Your task to perform on an android device: Toggle the flashlight Image 0: 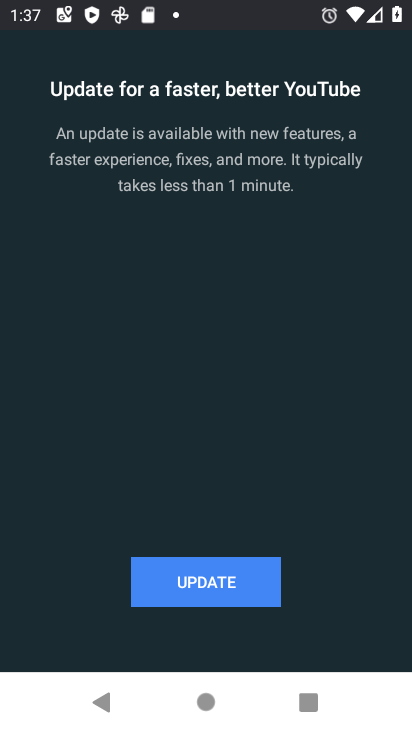
Step 0: press back button
Your task to perform on an android device: Toggle the flashlight Image 1: 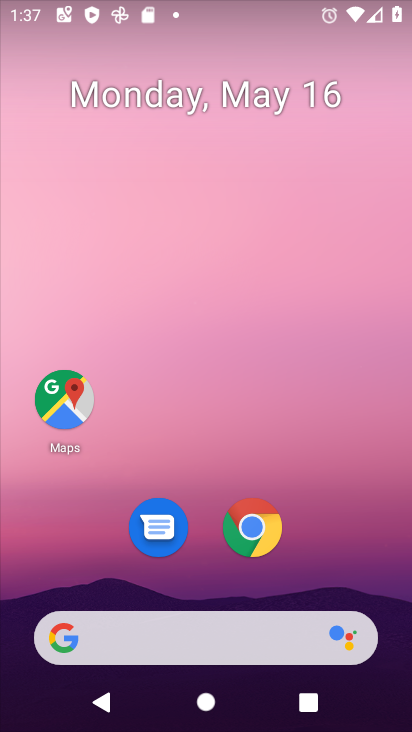
Step 1: drag from (349, 546) to (359, 42)
Your task to perform on an android device: Toggle the flashlight Image 2: 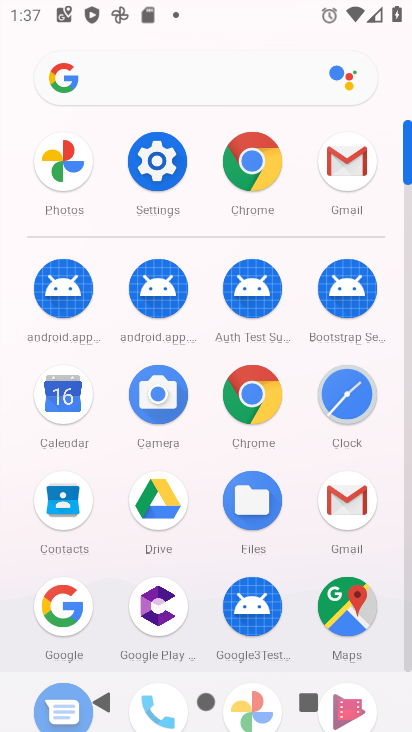
Step 2: click (155, 163)
Your task to perform on an android device: Toggle the flashlight Image 3: 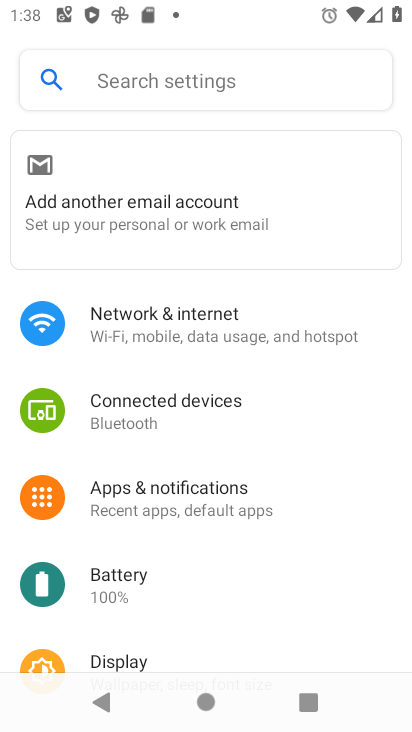
Step 3: click (213, 305)
Your task to perform on an android device: Toggle the flashlight Image 4: 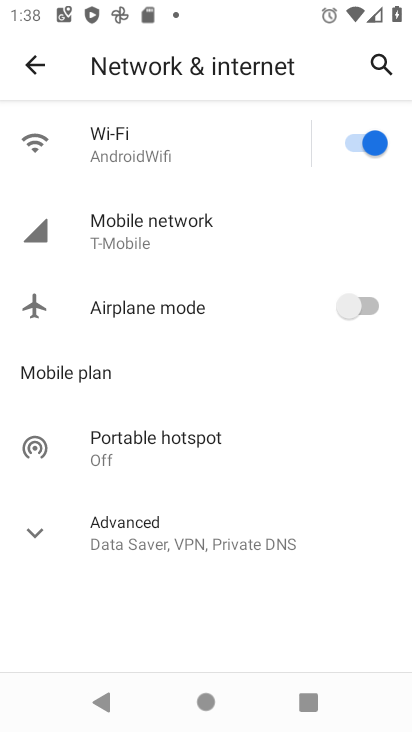
Step 4: task complete